Your task to perform on an android device: Show me the alarms in the clock app Image 0: 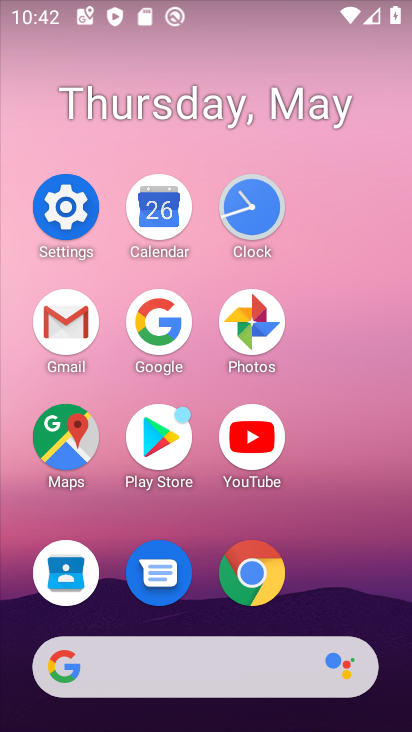
Step 0: click (256, 219)
Your task to perform on an android device: Show me the alarms in the clock app Image 1: 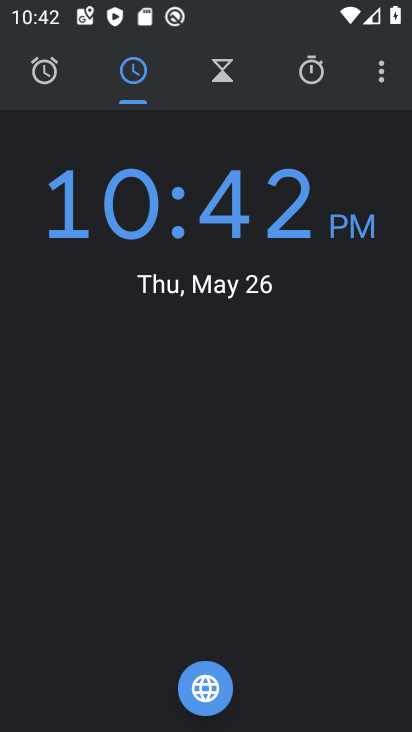
Step 1: click (52, 79)
Your task to perform on an android device: Show me the alarms in the clock app Image 2: 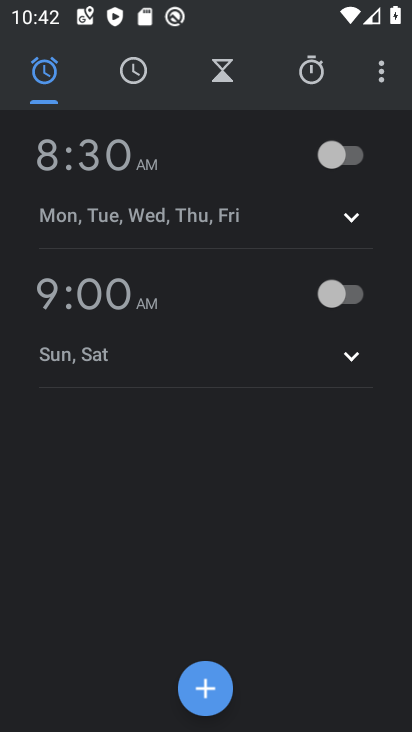
Step 2: task complete